Your task to perform on an android device: check out phone information Image 0: 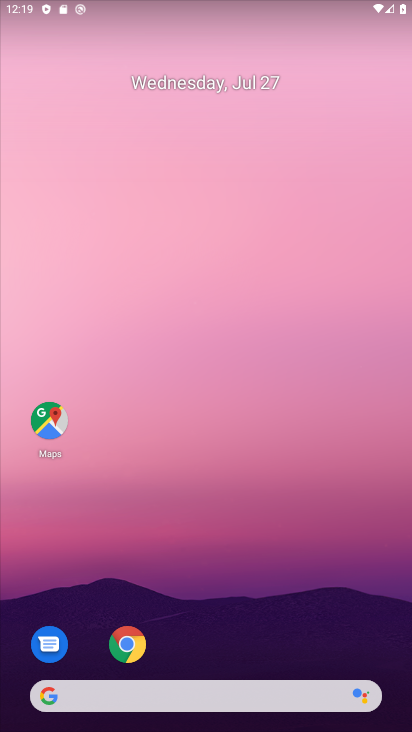
Step 0: drag from (246, 646) to (262, 360)
Your task to perform on an android device: check out phone information Image 1: 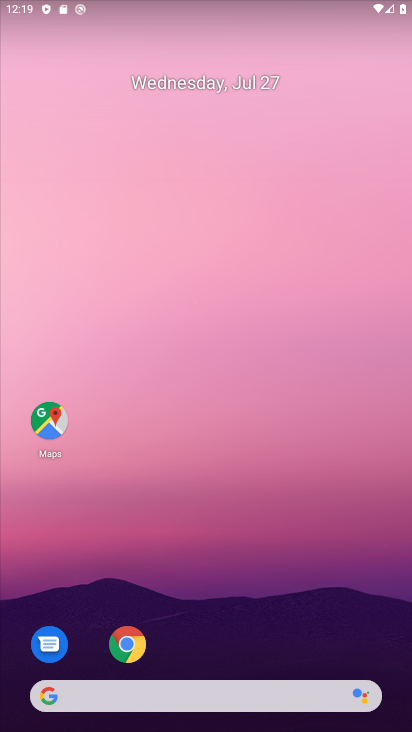
Step 1: drag from (203, 648) to (252, 52)
Your task to perform on an android device: check out phone information Image 2: 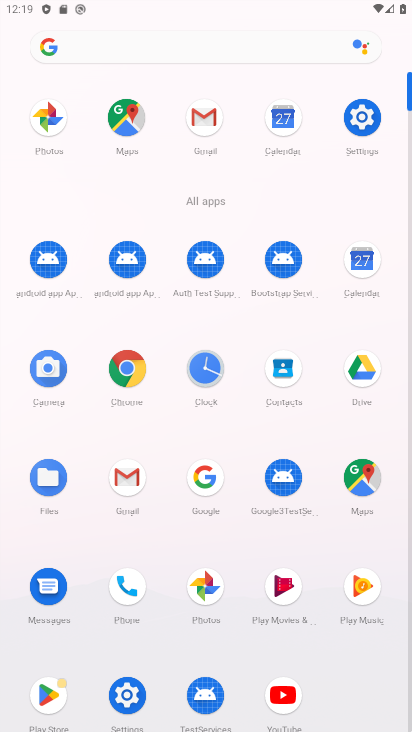
Step 2: click (130, 695)
Your task to perform on an android device: check out phone information Image 3: 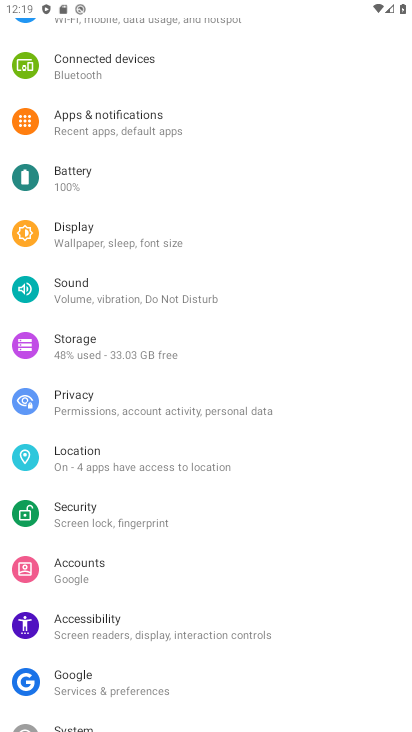
Step 3: drag from (105, 626) to (152, 309)
Your task to perform on an android device: check out phone information Image 4: 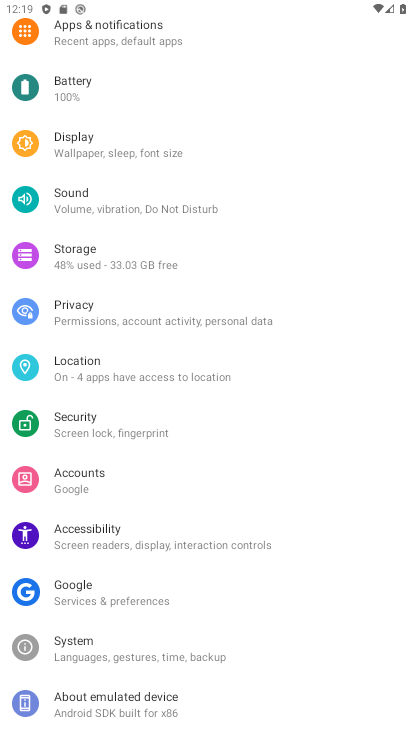
Step 4: drag from (117, 640) to (114, 547)
Your task to perform on an android device: check out phone information Image 5: 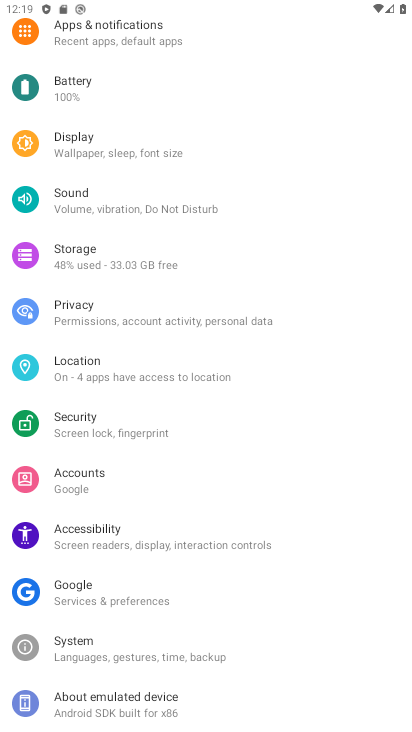
Step 5: click (87, 712)
Your task to perform on an android device: check out phone information Image 6: 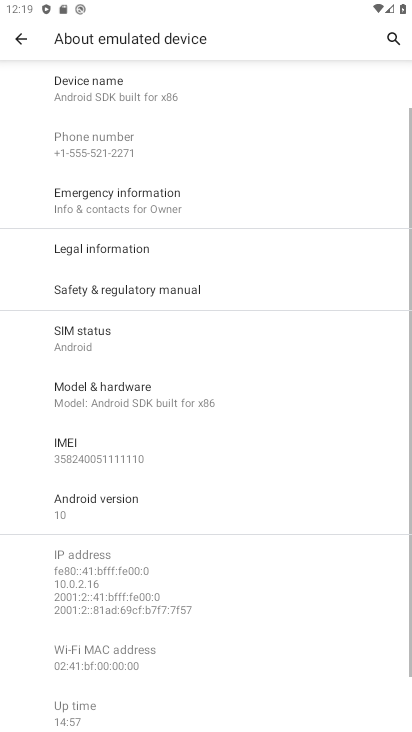
Step 6: task complete